Your task to perform on an android device: Open Android settings Image 0: 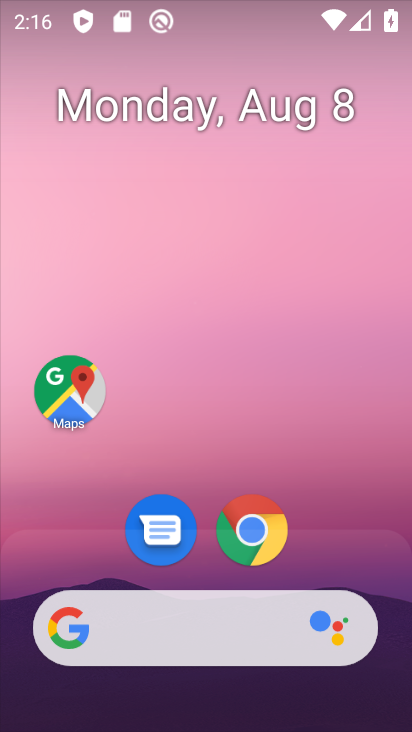
Step 0: drag from (402, 583) to (327, 22)
Your task to perform on an android device: Open Android settings Image 1: 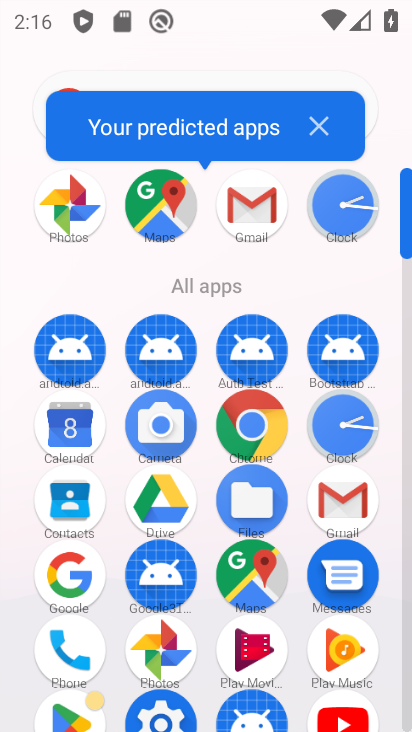
Step 1: click (156, 715)
Your task to perform on an android device: Open Android settings Image 2: 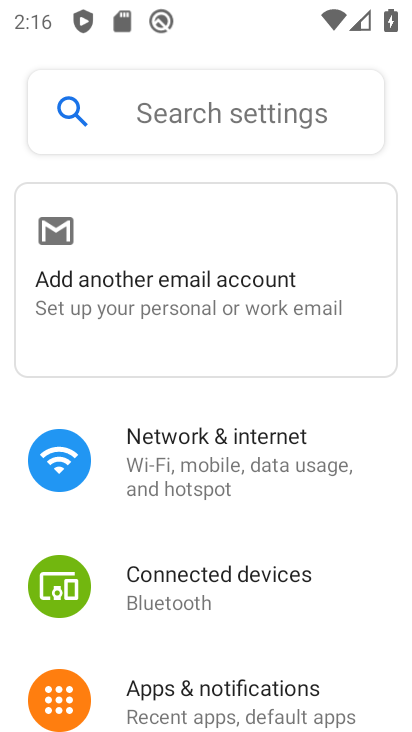
Step 2: task complete